Your task to perform on an android device: What's the weather going to be this weekend? Image 0: 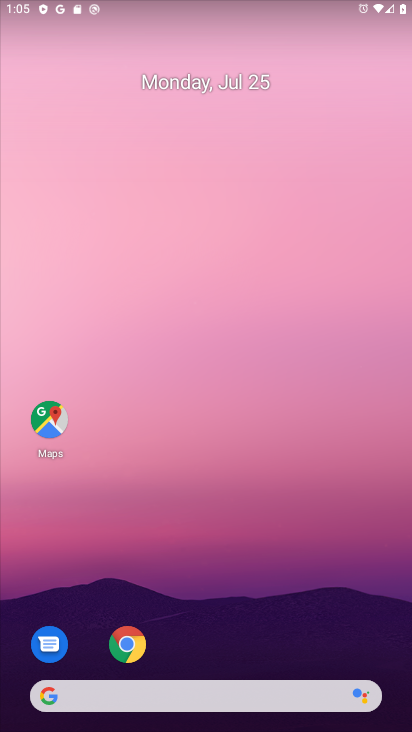
Step 0: click (203, 691)
Your task to perform on an android device: What's the weather going to be this weekend? Image 1: 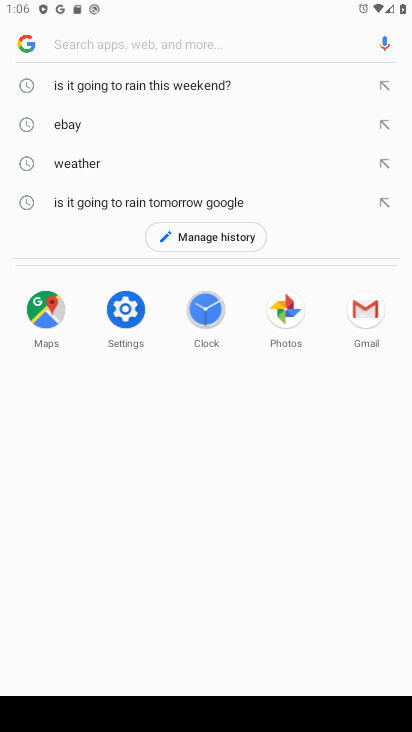
Step 1: type "what's the weather going to be this weekend"
Your task to perform on an android device: What's the weather going to be this weekend? Image 2: 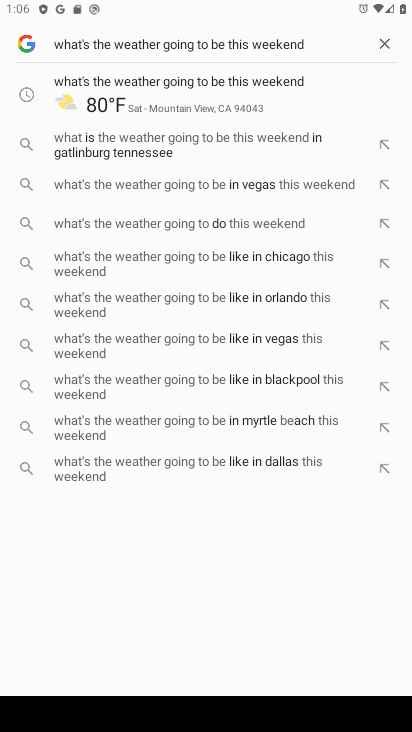
Step 2: click (249, 80)
Your task to perform on an android device: What's the weather going to be this weekend? Image 3: 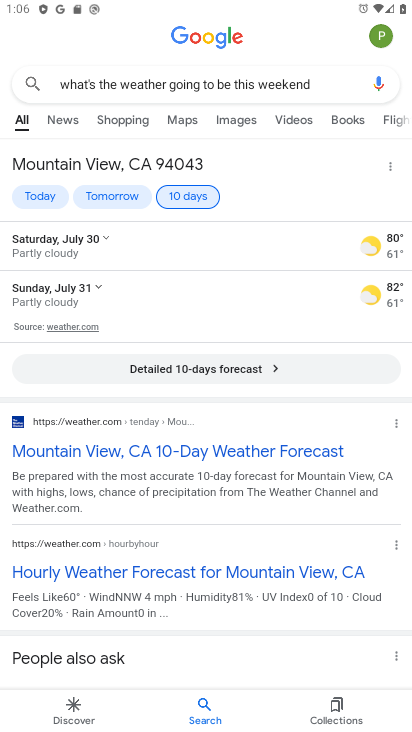
Step 3: task complete